Your task to perform on an android device: turn off location Image 0: 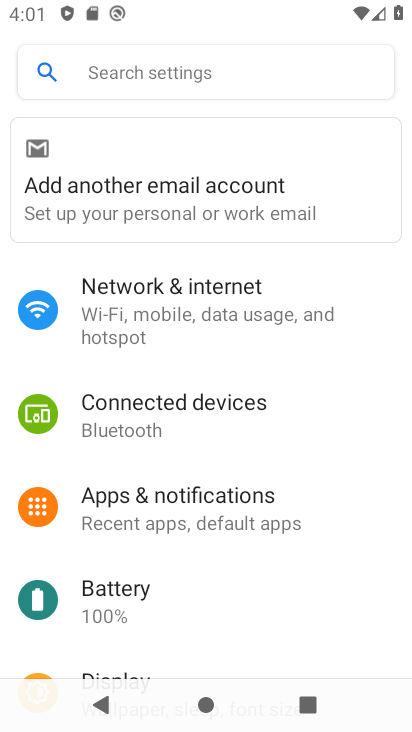
Step 0: drag from (169, 615) to (243, 287)
Your task to perform on an android device: turn off location Image 1: 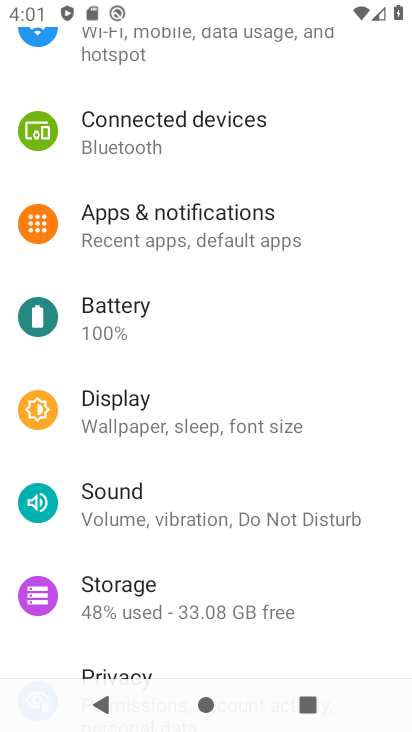
Step 1: drag from (184, 635) to (259, 296)
Your task to perform on an android device: turn off location Image 2: 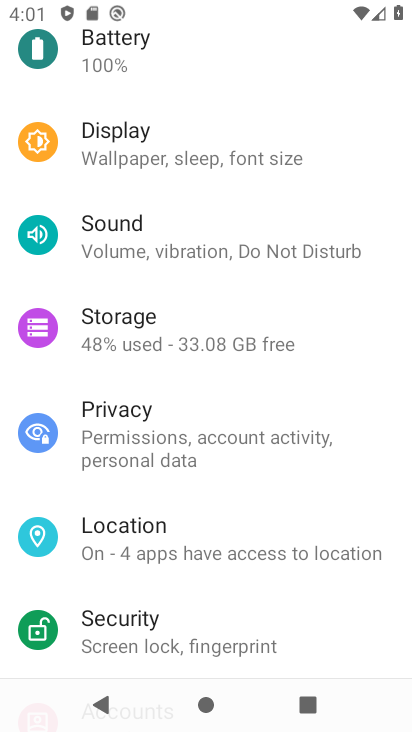
Step 2: click (188, 546)
Your task to perform on an android device: turn off location Image 3: 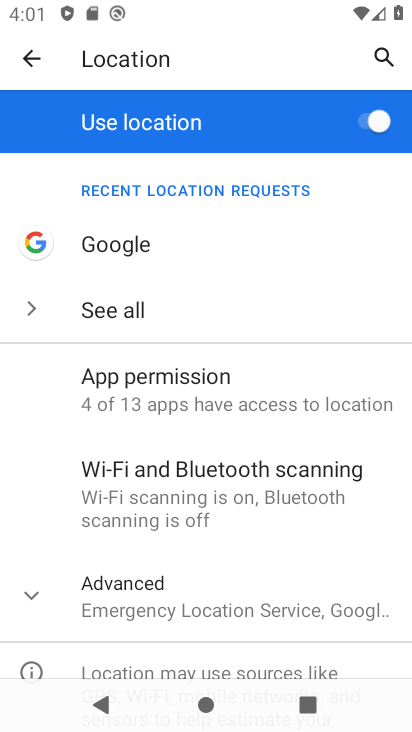
Step 3: click (361, 111)
Your task to perform on an android device: turn off location Image 4: 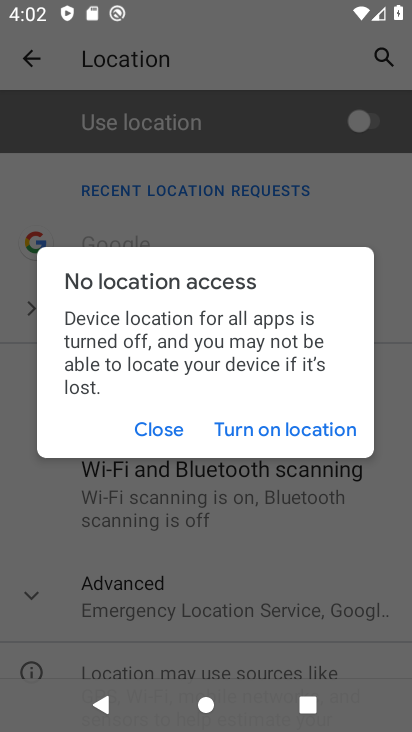
Step 4: click (171, 431)
Your task to perform on an android device: turn off location Image 5: 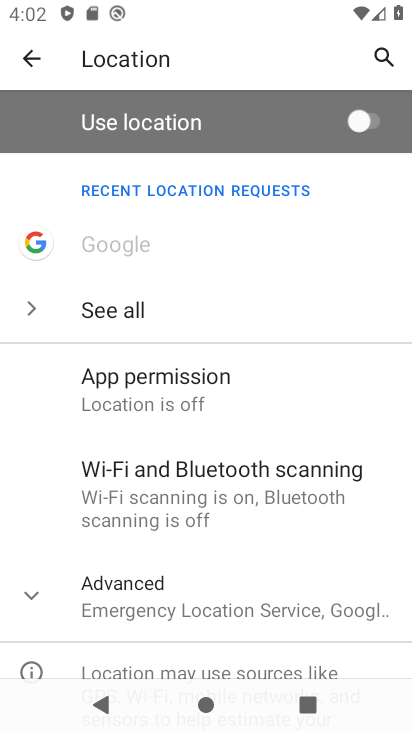
Step 5: task complete